Your task to perform on an android device: Open display settings Image 0: 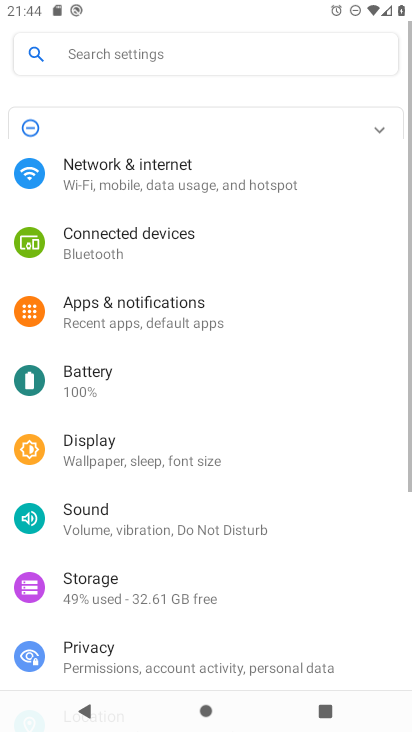
Step 0: click (227, 617)
Your task to perform on an android device: Open display settings Image 1: 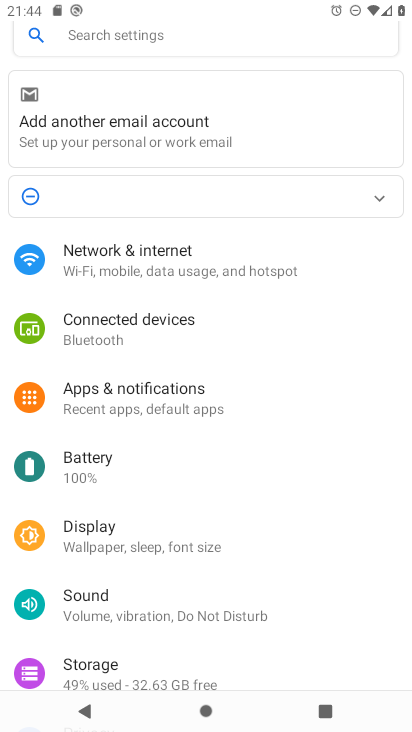
Step 1: click (159, 532)
Your task to perform on an android device: Open display settings Image 2: 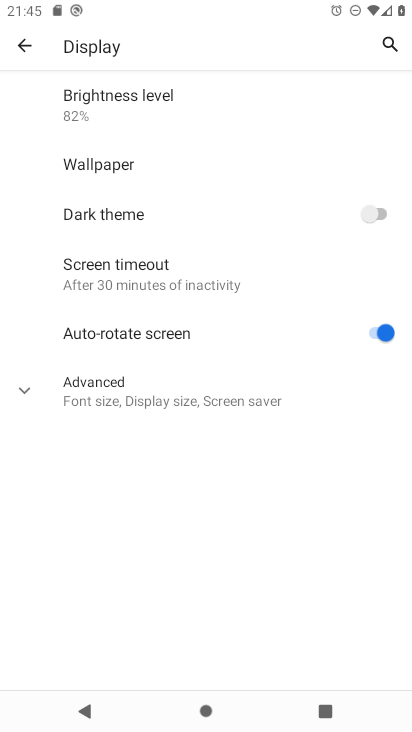
Step 2: task complete